Your task to perform on an android device: Open notification settings Image 0: 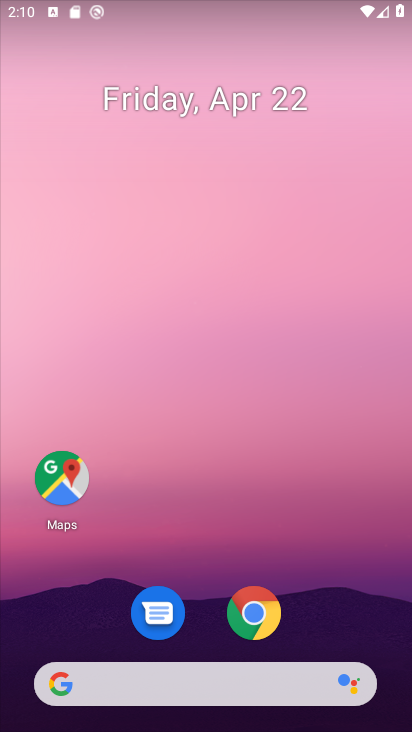
Step 0: drag from (249, 718) to (307, 36)
Your task to perform on an android device: Open notification settings Image 1: 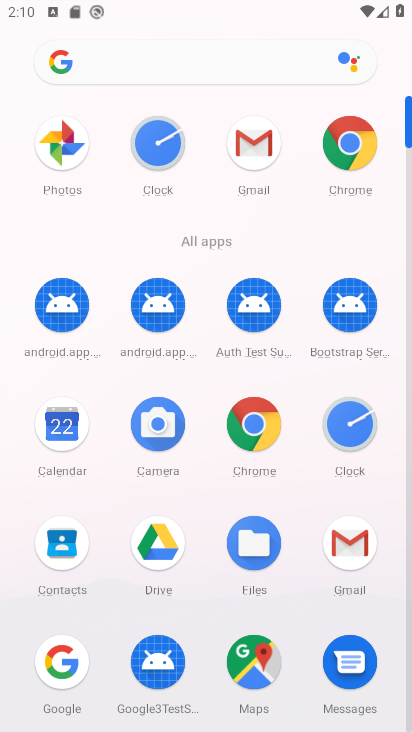
Step 1: drag from (243, 485) to (293, 14)
Your task to perform on an android device: Open notification settings Image 2: 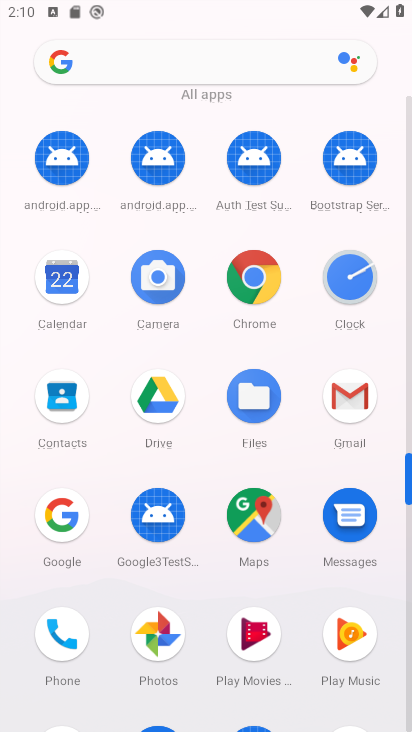
Step 2: drag from (244, 634) to (293, 111)
Your task to perform on an android device: Open notification settings Image 3: 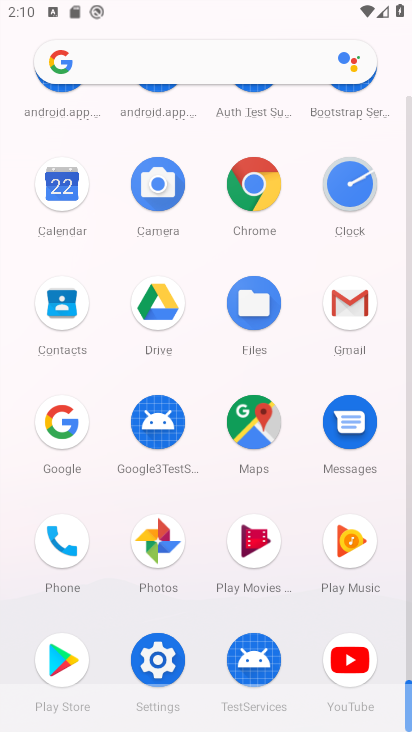
Step 3: click (175, 667)
Your task to perform on an android device: Open notification settings Image 4: 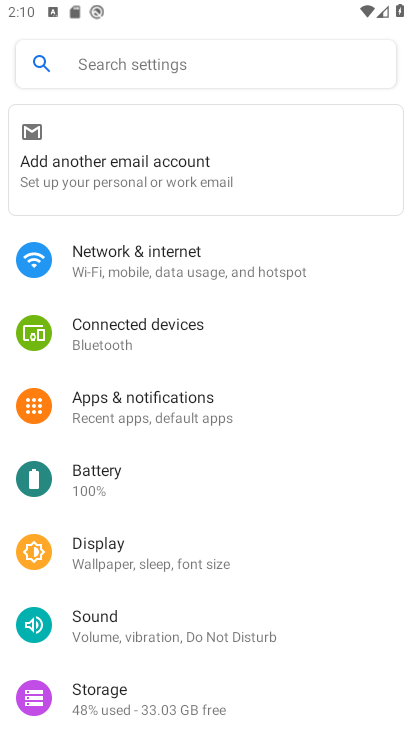
Step 4: click (200, 413)
Your task to perform on an android device: Open notification settings Image 5: 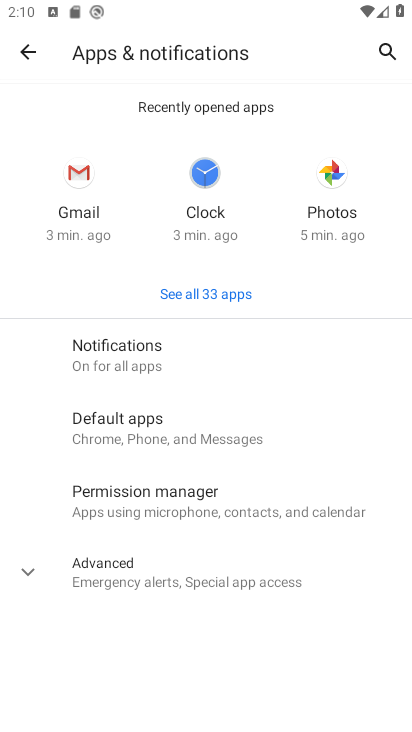
Step 5: task complete